Your task to perform on an android device: Open Google Maps Image 0: 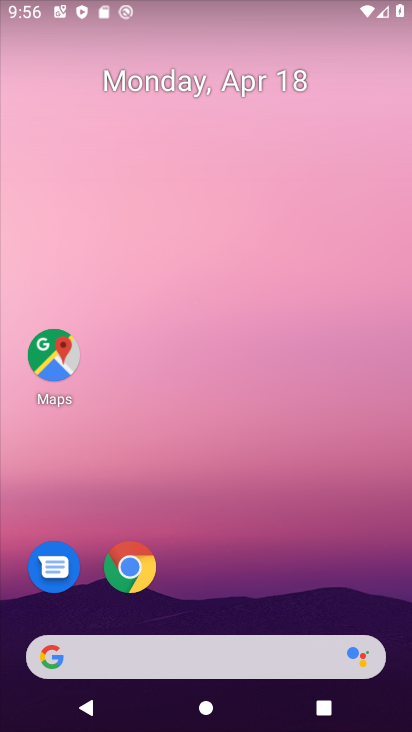
Step 0: click (47, 371)
Your task to perform on an android device: Open Google Maps Image 1: 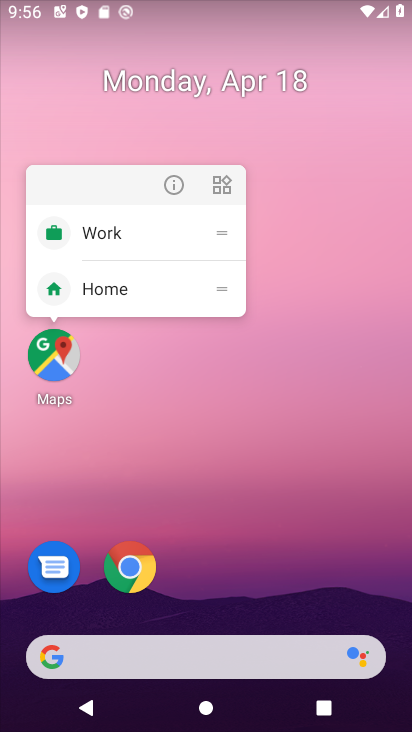
Step 1: click (65, 335)
Your task to perform on an android device: Open Google Maps Image 2: 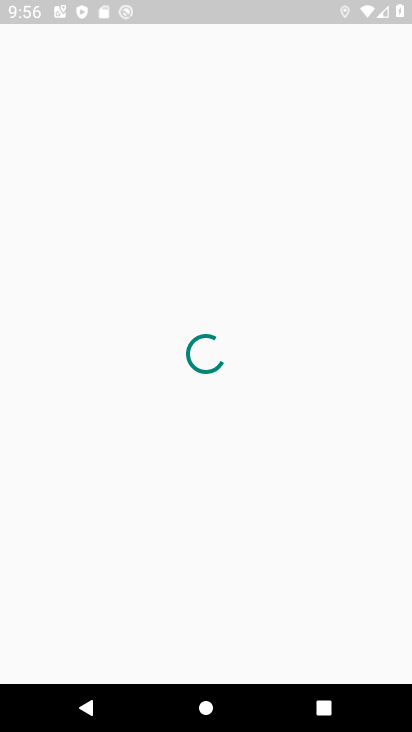
Step 2: task complete